Your task to perform on an android device: Open the calendar and show me this week's events? Image 0: 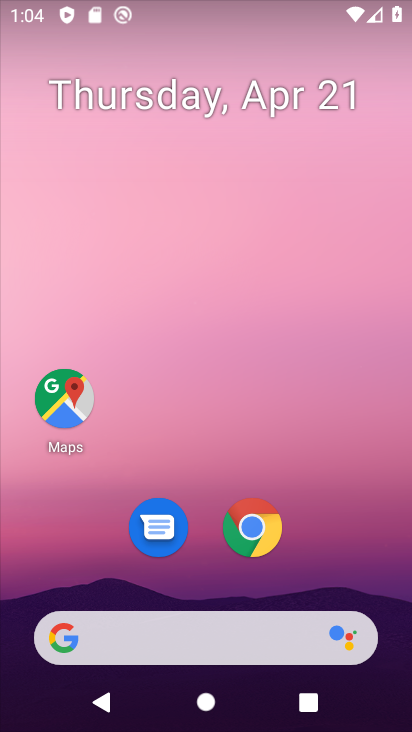
Step 0: drag from (327, 549) to (339, 145)
Your task to perform on an android device: Open the calendar and show me this week's events? Image 1: 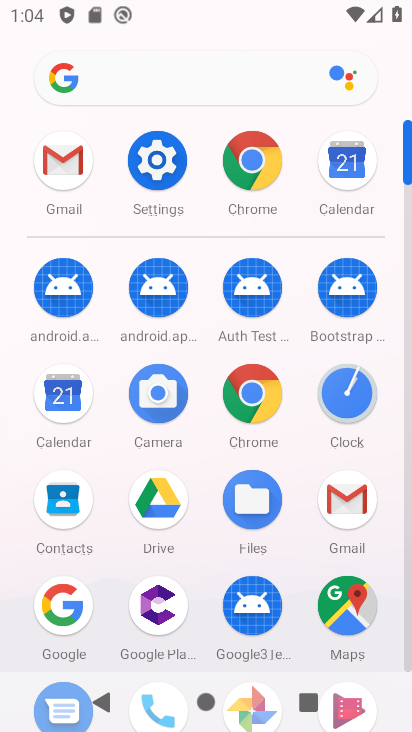
Step 1: click (75, 408)
Your task to perform on an android device: Open the calendar and show me this week's events? Image 2: 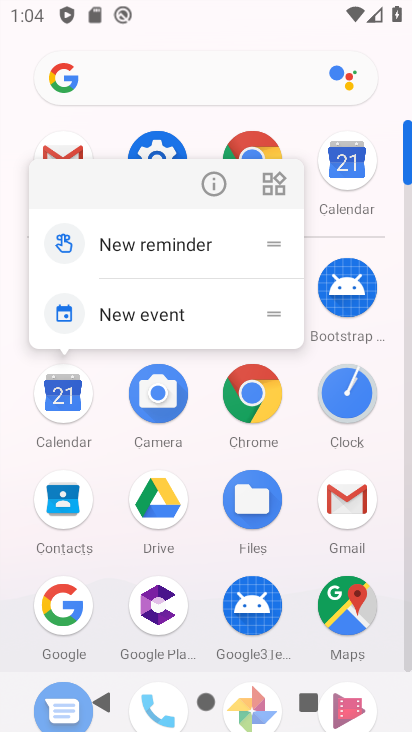
Step 2: click (75, 408)
Your task to perform on an android device: Open the calendar and show me this week's events? Image 3: 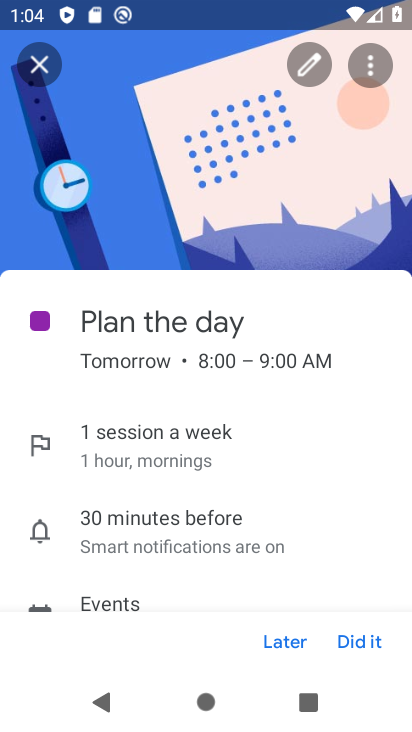
Step 3: task complete